Your task to perform on an android device: Search for vegetarian restaurants on Maps Image 0: 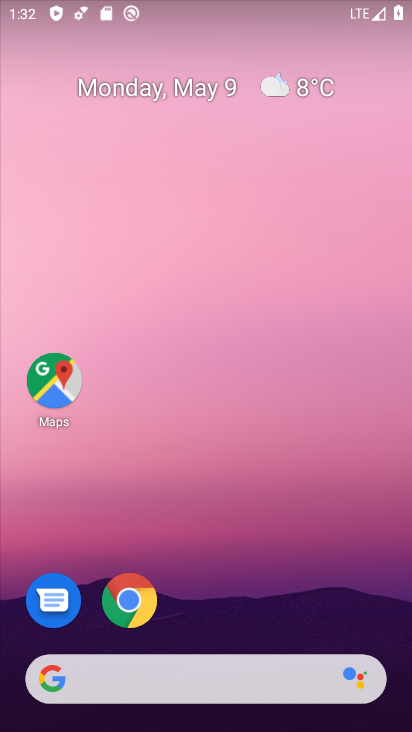
Step 0: press home button
Your task to perform on an android device: Search for vegetarian restaurants on Maps Image 1: 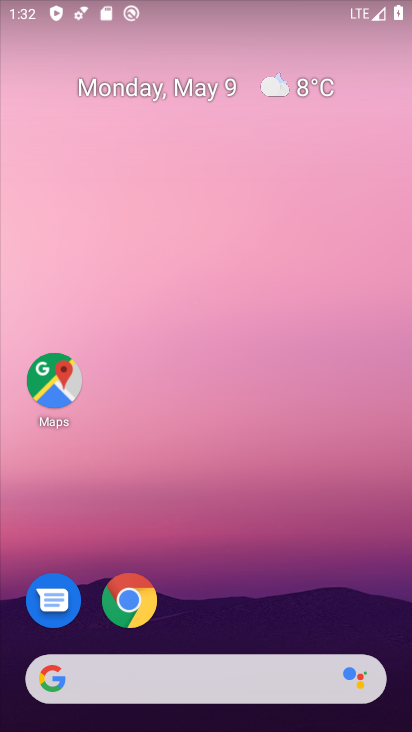
Step 1: click (49, 371)
Your task to perform on an android device: Search for vegetarian restaurants on Maps Image 2: 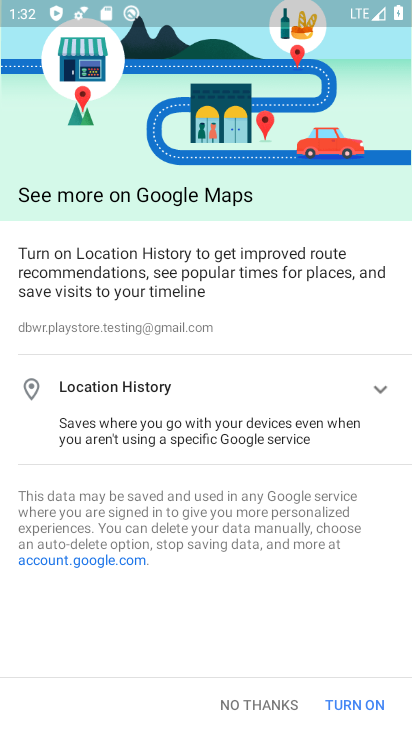
Step 2: click (361, 706)
Your task to perform on an android device: Search for vegetarian restaurants on Maps Image 3: 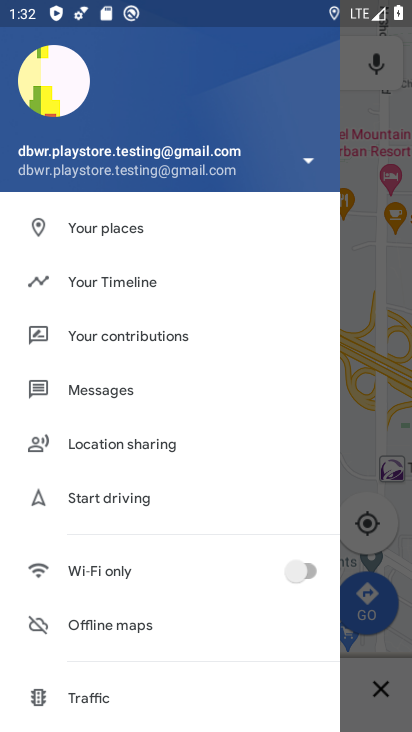
Step 3: click (358, 268)
Your task to perform on an android device: Search for vegetarian restaurants on Maps Image 4: 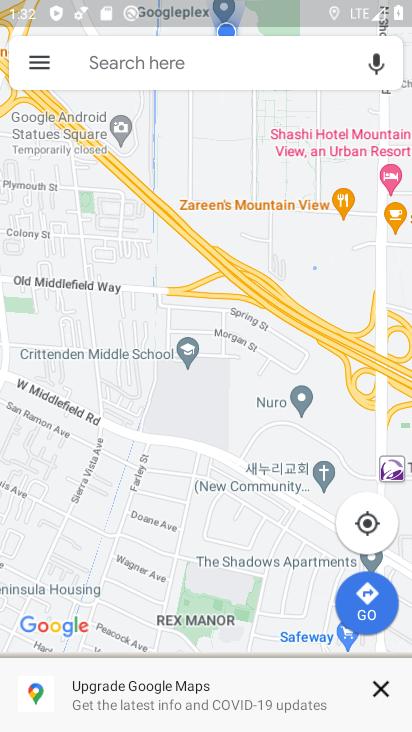
Step 4: click (146, 60)
Your task to perform on an android device: Search for vegetarian restaurants on Maps Image 5: 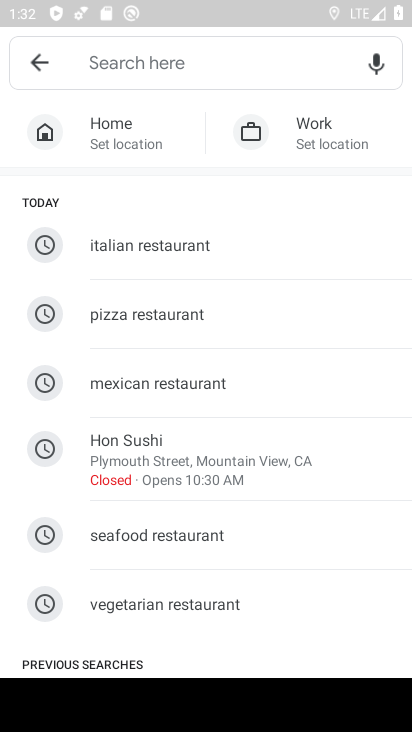
Step 5: click (186, 605)
Your task to perform on an android device: Search for vegetarian restaurants on Maps Image 6: 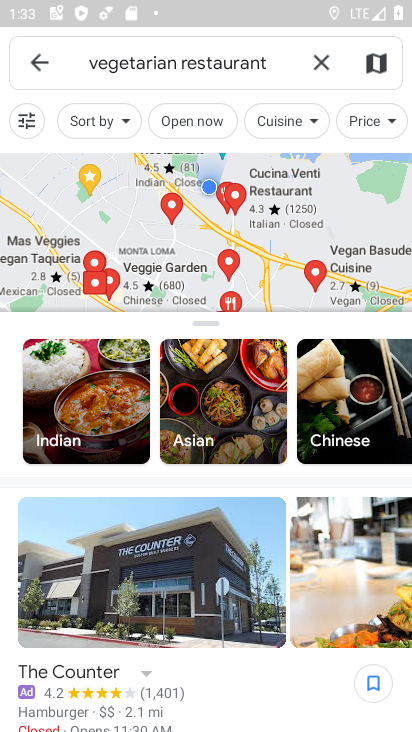
Step 6: task complete